Your task to perform on an android device: Go to calendar. Show me events next week Image 0: 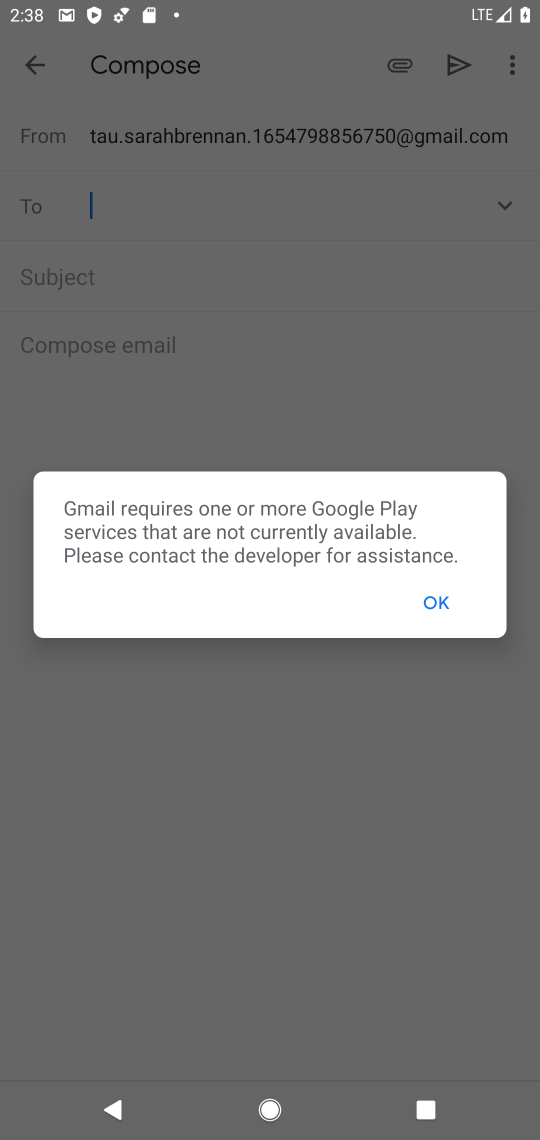
Step 0: press home button
Your task to perform on an android device: Go to calendar. Show me events next week Image 1: 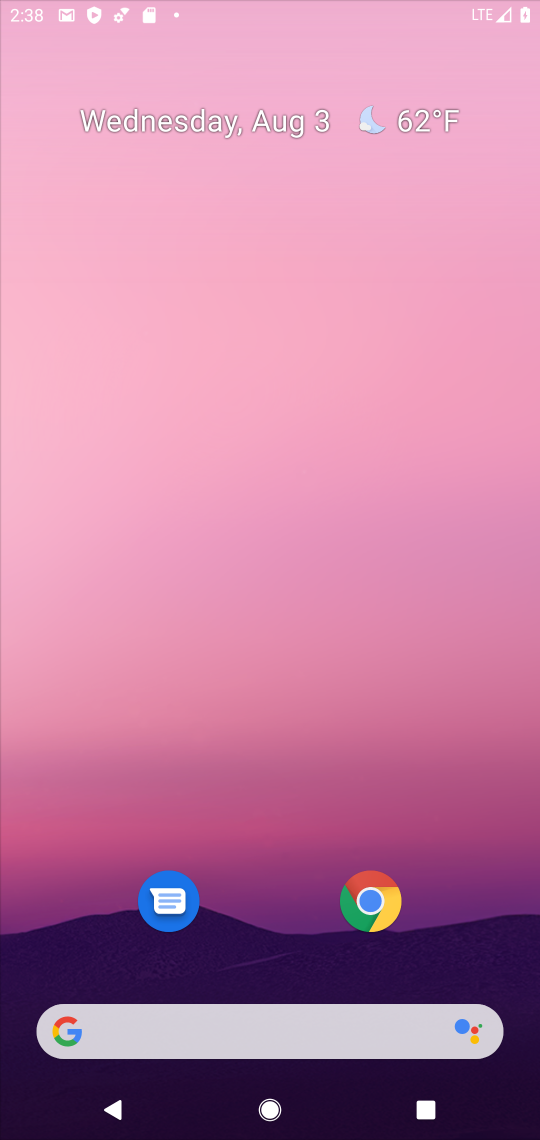
Step 1: drag from (267, 896) to (290, 227)
Your task to perform on an android device: Go to calendar. Show me events next week Image 2: 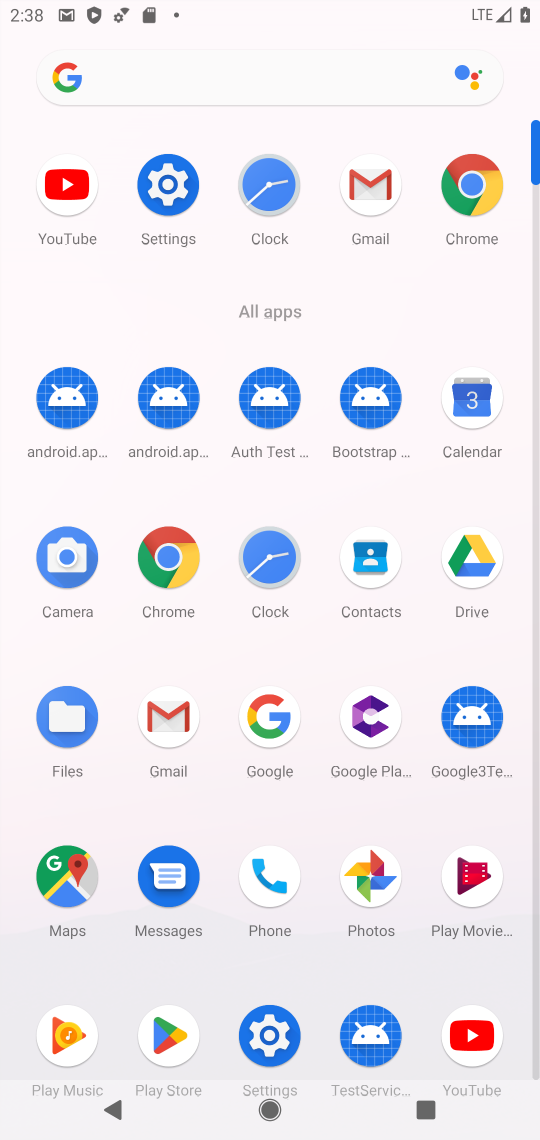
Step 2: click (473, 381)
Your task to perform on an android device: Go to calendar. Show me events next week Image 3: 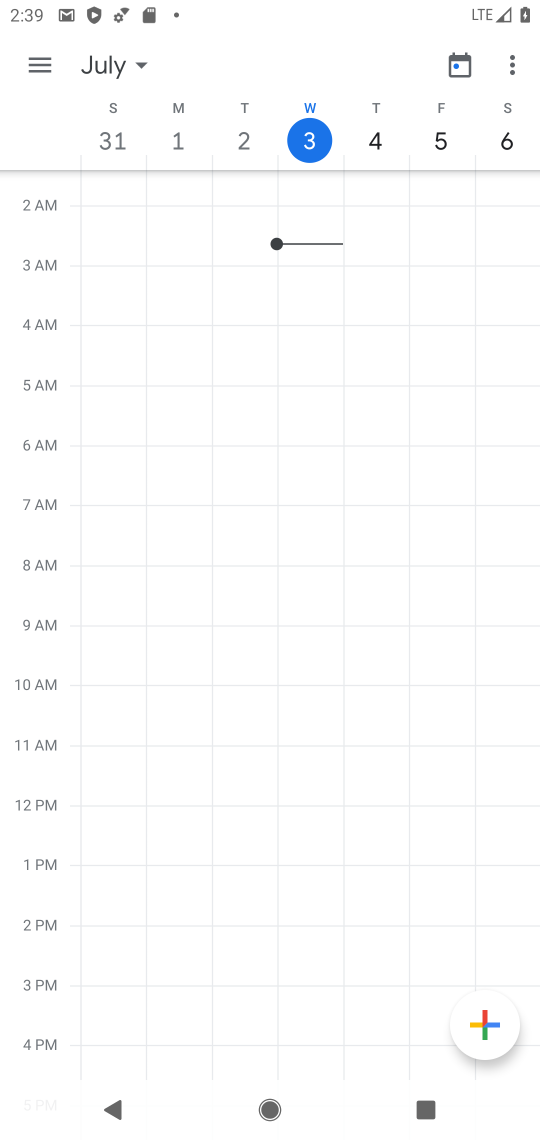
Step 3: task complete